Your task to perform on an android device: open chrome privacy settings Image 0: 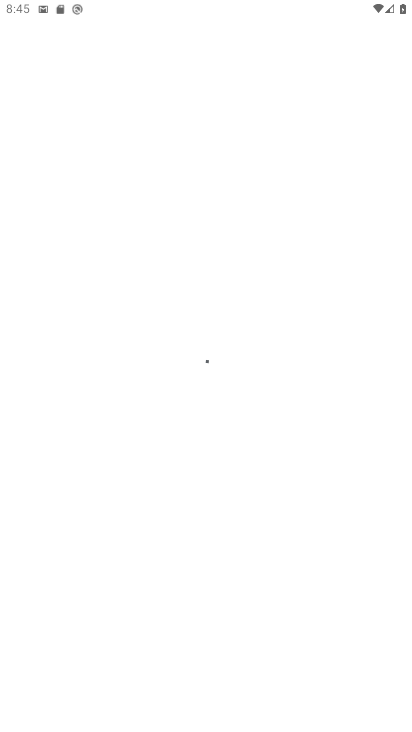
Step 0: press home button
Your task to perform on an android device: open chrome privacy settings Image 1: 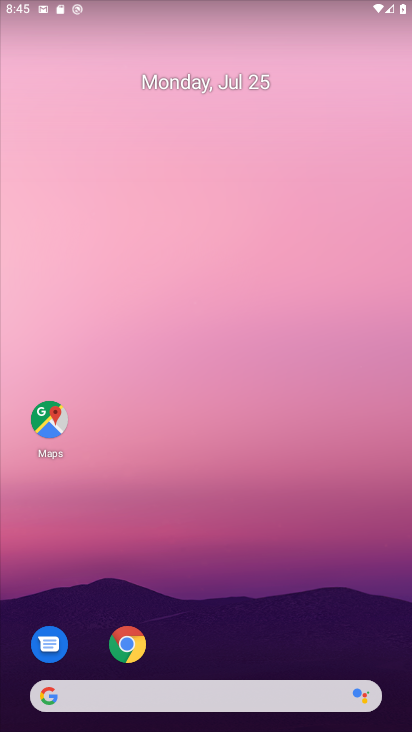
Step 1: click (135, 661)
Your task to perform on an android device: open chrome privacy settings Image 2: 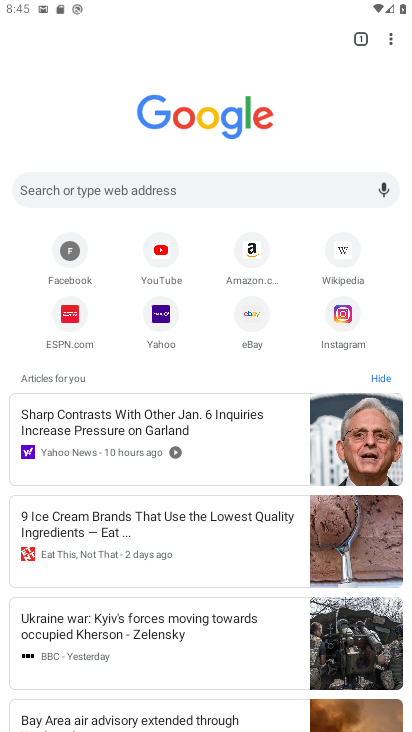
Step 2: click (389, 34)
Your task to perform on an android device: open chrome privacy settings Image 3: 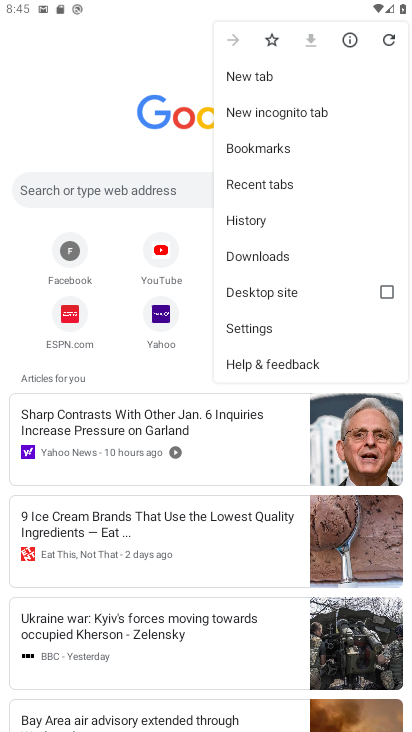
Step 3: click (227, 324)
Your task to perform on an android device: open chrome privacy settings Image 4: 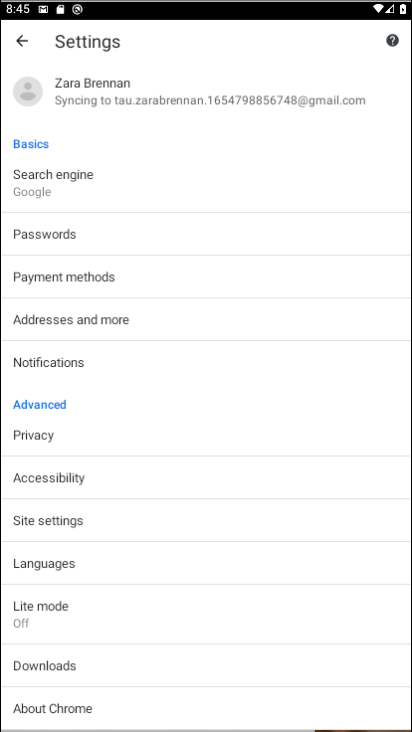
Step 4: click (227, 324)
Your task to perform on an android device: open chrome privacy settings Image 5: 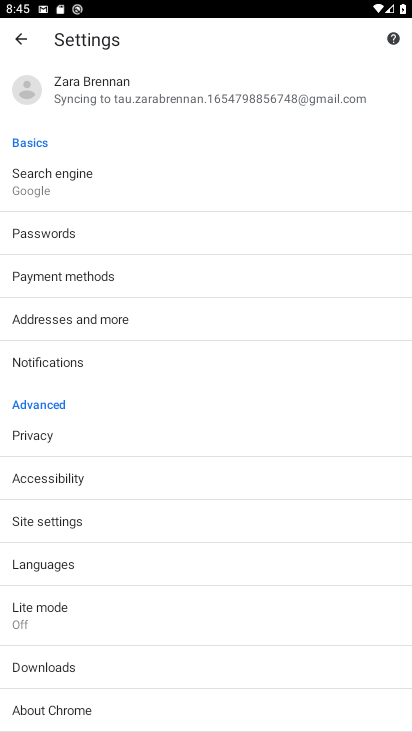
Step 5: click (227, 324)
Your task to perform on an android device: open chrome privacy settings Image 6: 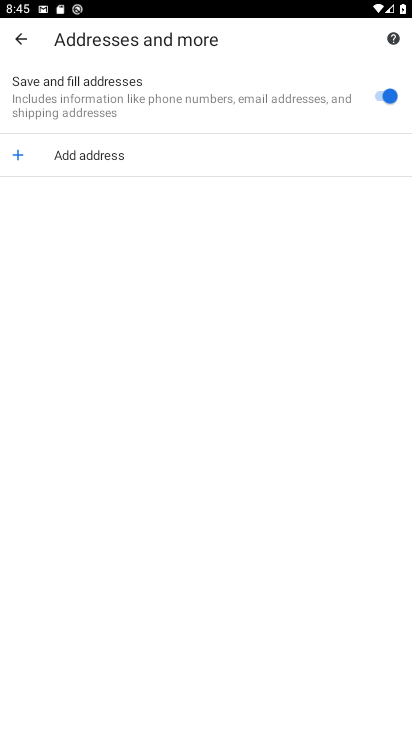
Step 6: click (23, 42)
Your task to perform on an android device: open chrome privacy settings Image 7: 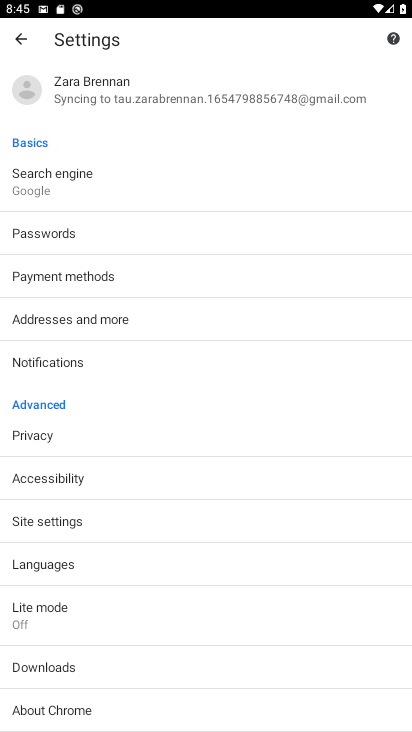
Step 7: click (61, 442)
Your task to perform on an android device: open chrome privacy settings Image 8: 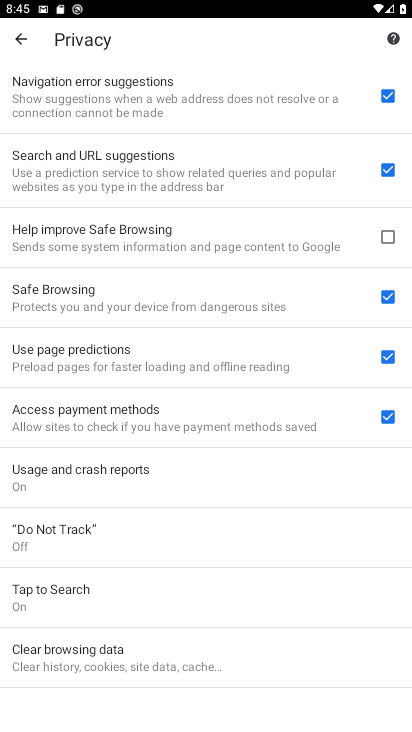
Step 8: task complete